Your task to perform on an android device: delete the emails in spam in the gmail app Image 0: 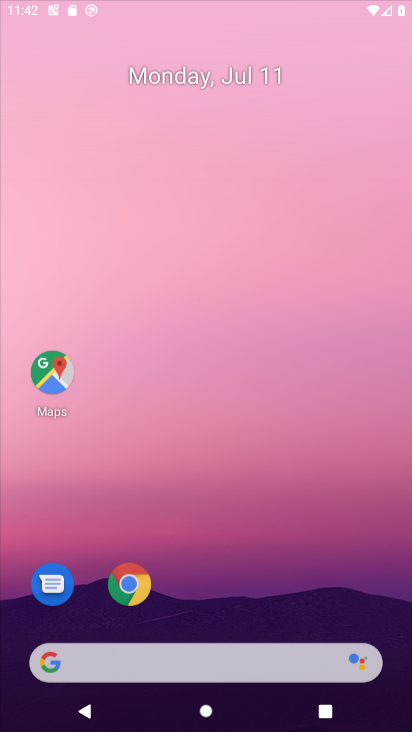
Step 0: drag from (258, 719) to (82, 88)
Your task to perform on an android device: delete the emails in spam in the gmail app Image 1: 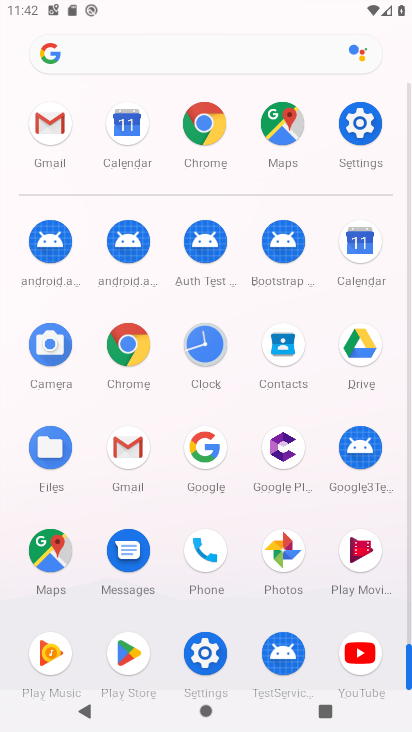
Step 1: click (116, 453)
Your task to perform on an android device: delete the emails in spam in the gmail app Image 2: 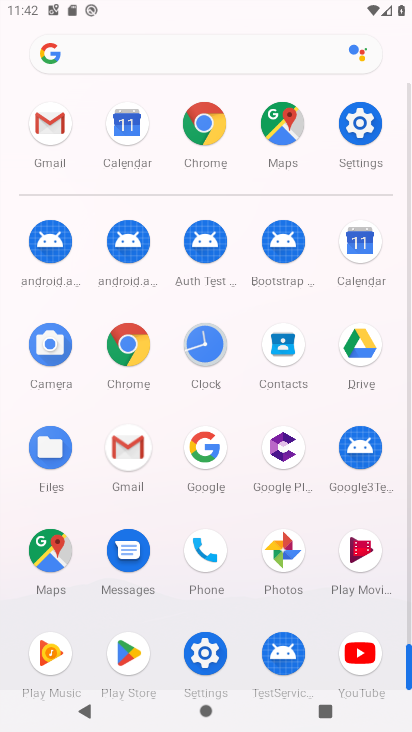
Step 2: click (124, 440)
Your task to perform on an android device: delete the emails in spam in the gmail app Image 3: 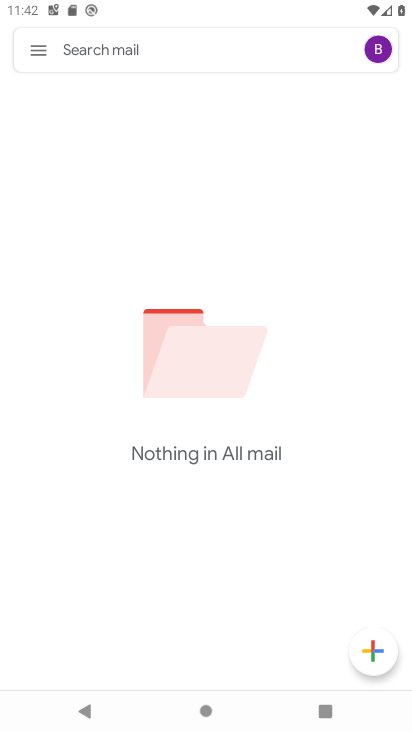
Step 3: click (44, 50)
Your task to perform on an android device: delete the emails in spam in the gmail app Image 4: 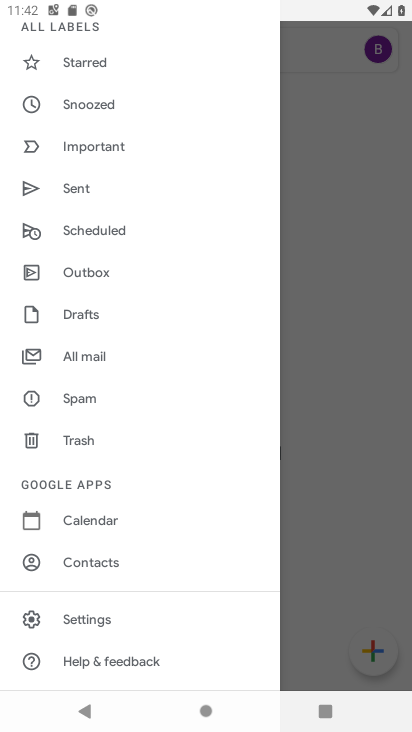
Step 4: click (71, 400)
Your task to perform on an android device: delete the emails in spam in the gmail app Image 5: 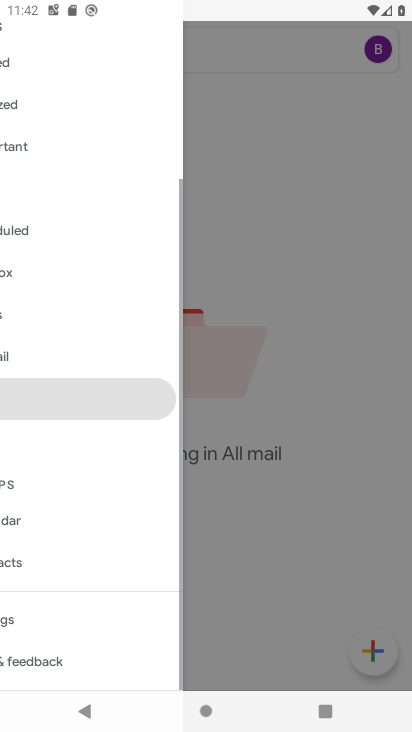
Step 5: click (70, 402)
Your task to perform on an android device: delete the emails in spam in the gmail app Image 6: 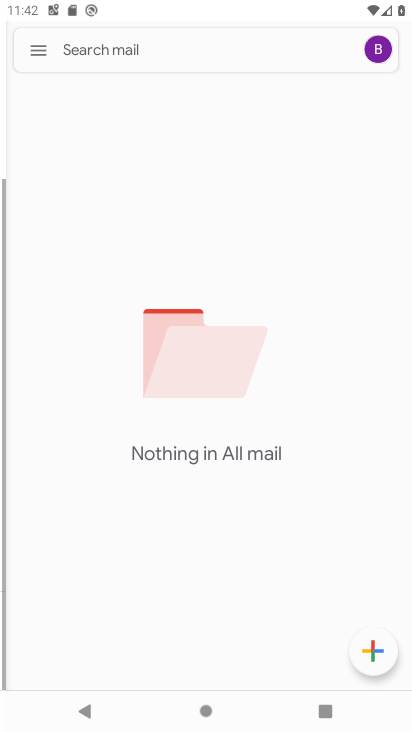
Step 6: click (66, 399)
Your task to perform on an android device: delete the emails in spam in the gmail app Image 7: 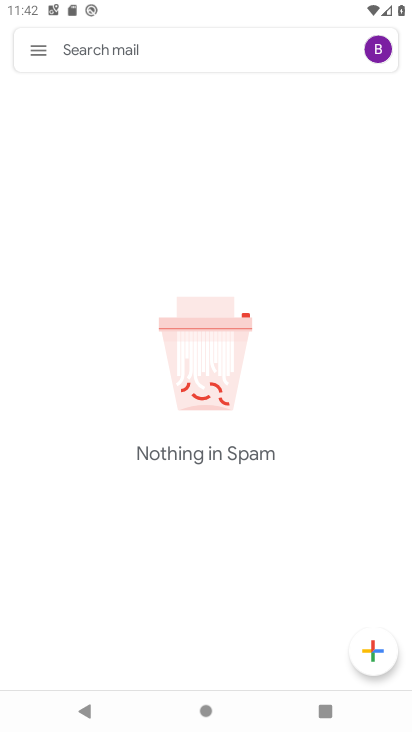
Step 7: task complete